Your task to perform on an android device: Open the web browser Image 0: 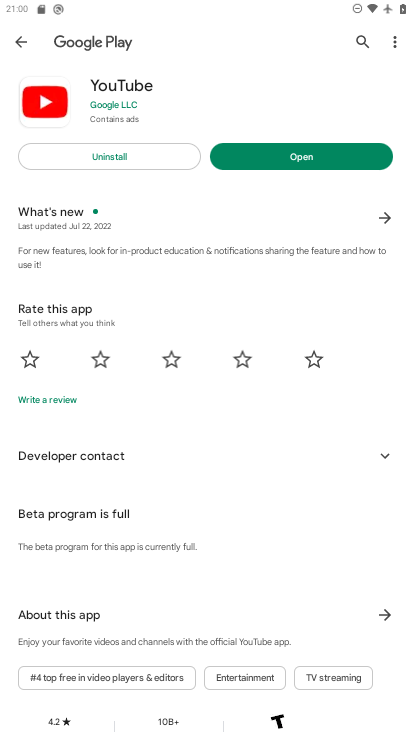
Step 0: press home button
Your task to perform on an android device: Open the web browser Image 1: 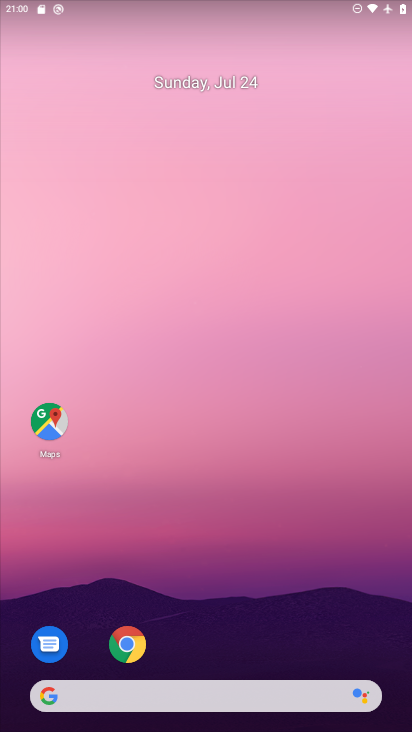
Step 1: click (130, 647)
Your task to perform on an android device: Open the web browser Image 2: 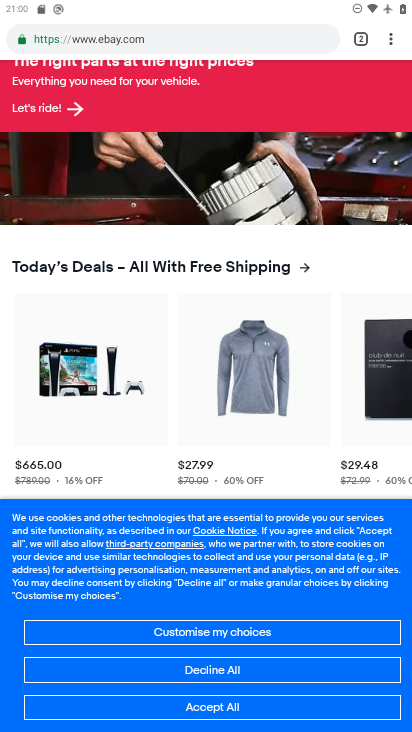
Step 2: task complete